Your task to perform on an android device: change alarm snooze length Image 0: 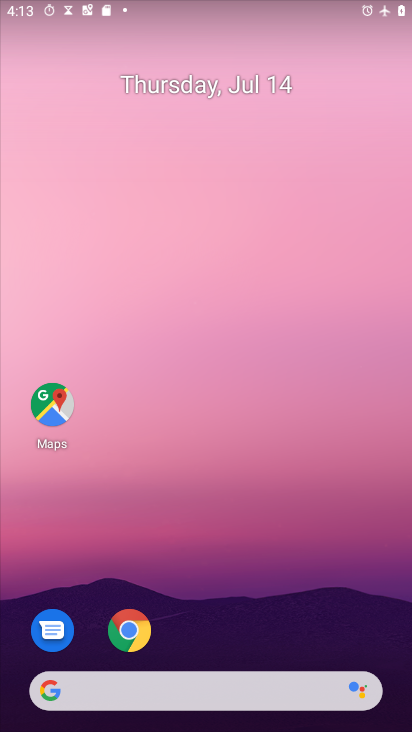
Step 0: drag from (212, 687) to (226, 146)
Your task to perform on an android device: change alarm snooze length Image 1: 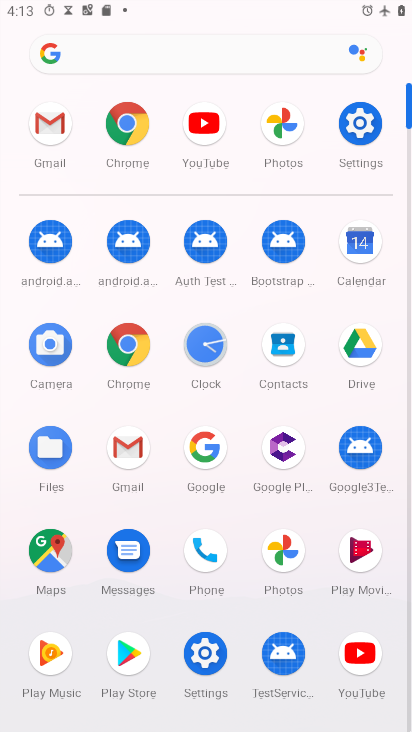
Step 1: click (206, 350)
Your task to perform on an android device: change alarm snooze length Image 2: 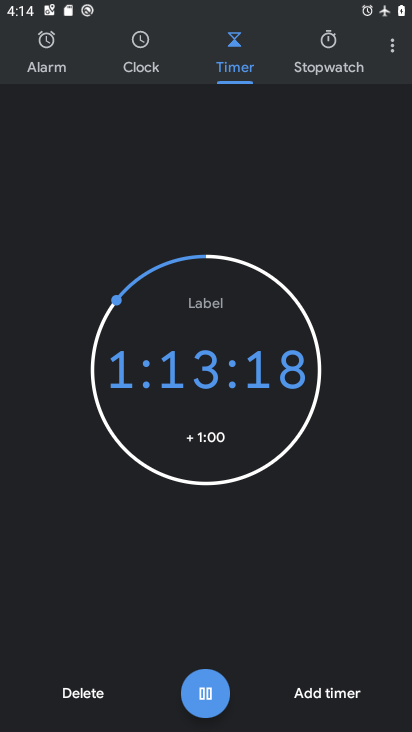
Step 2: click (395, 52)
Your task to perform on an android device: change alarm snooze length Image 3: 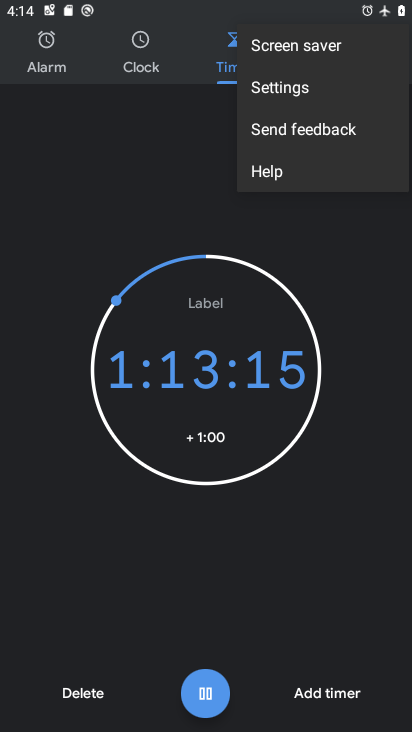
Step 3: click (275, 88)
Your task to perform on an android device: change alarm snooze length Image 4: 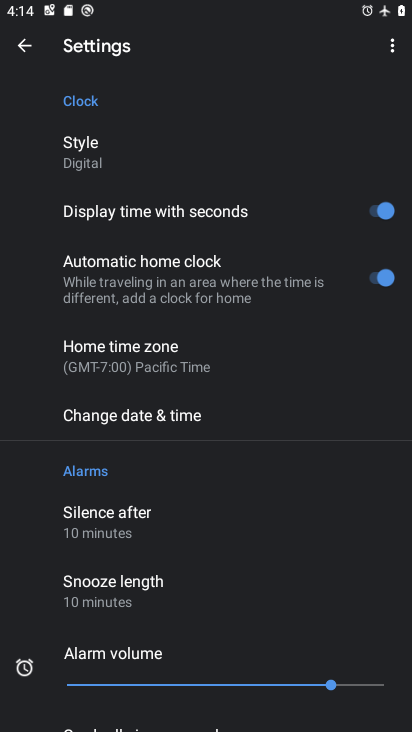
Step 4: click (92, 588)
Your task to perform on an android device: change alarm snooze length Image 5: 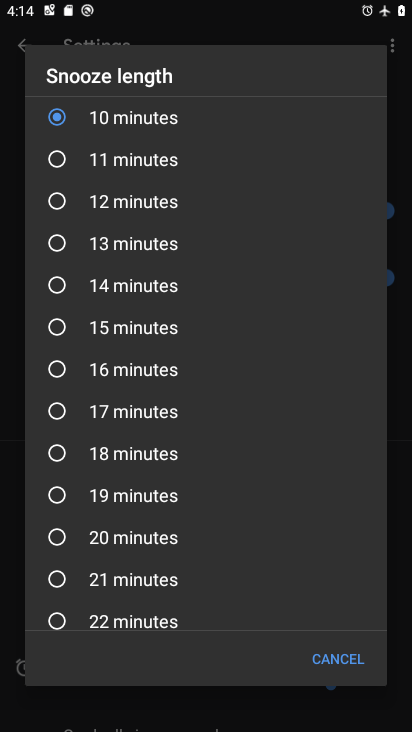
Step 5: click (56, 574)
Your task to perform on an android device: change alarm snooze length Image 6: 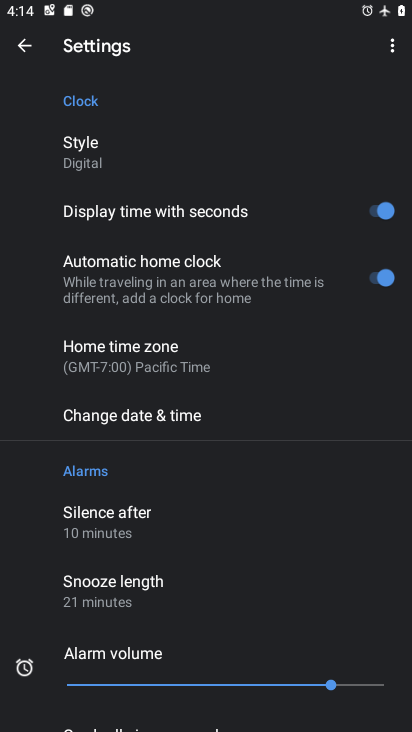
Step 6: task complete